Your task to perform on an android device: Open Google Chrome and click the shortcut for Amazon.com Image 0: 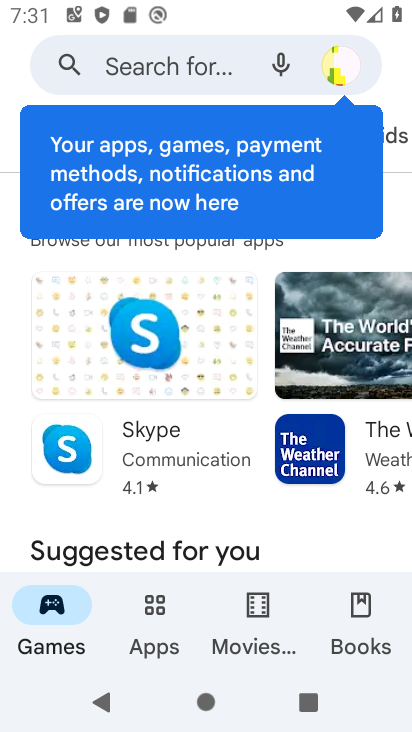
Step 0: press back button
Your task to perform on an android device: Open Google Chrome and click the shortcut for Amazon.com Image 1: 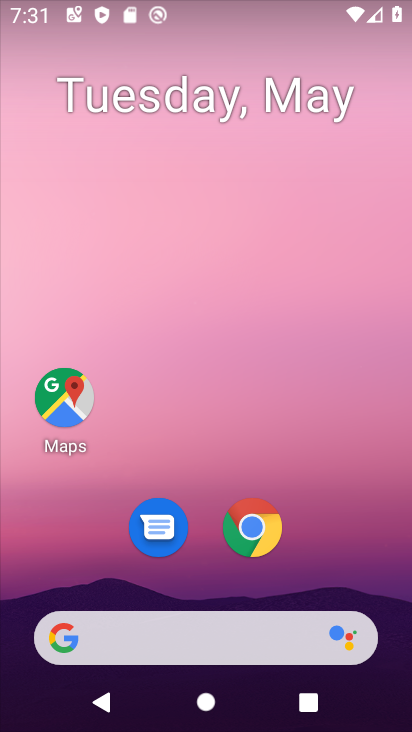
Step 1: click (254, 530)
Your task to perform on an android device: Open Google Chrome and click the shortcut for Amazon.com Image 2: 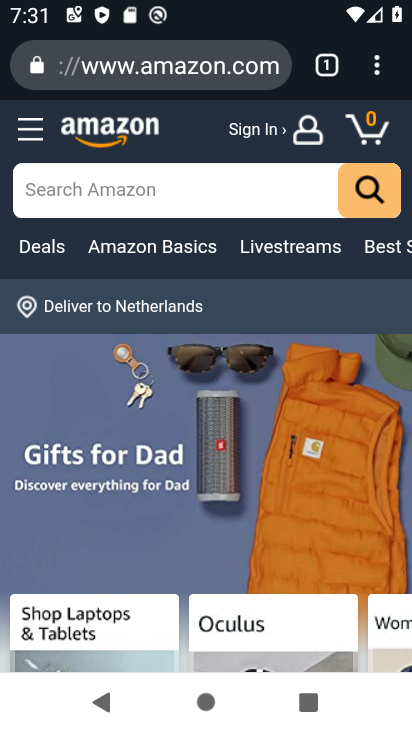
Step 2: click (378, 66)
Your task to perform on an android device: Open Google Chrome and click the shortcut for Amazon.com Image 3: 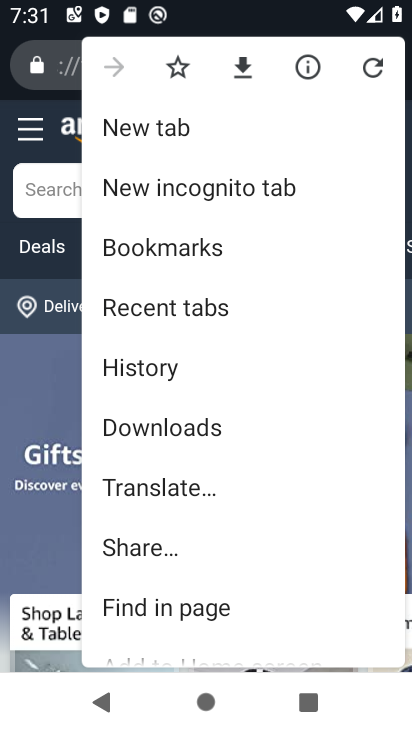
Step 3: drag from (203, 536) to (230, 444)
Your task to perform on an android device: Open Google Chrome and click the shortcut for Amazon.com Image 4: 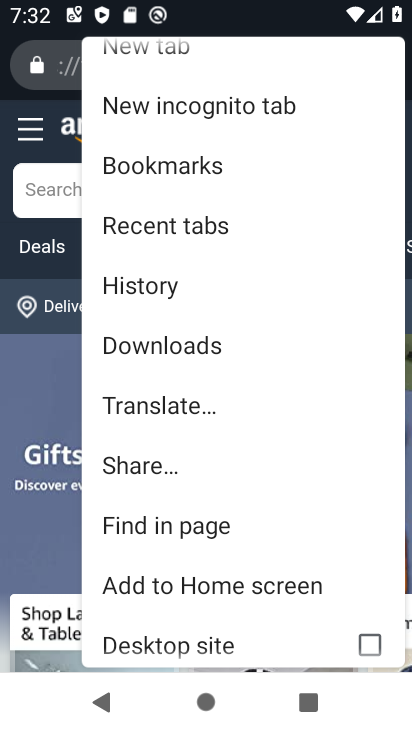
Step 4: click (228, 583)
Your task to perform on an android device: Open Google Chrome and click the shortcut for Amazon.com Image 5: 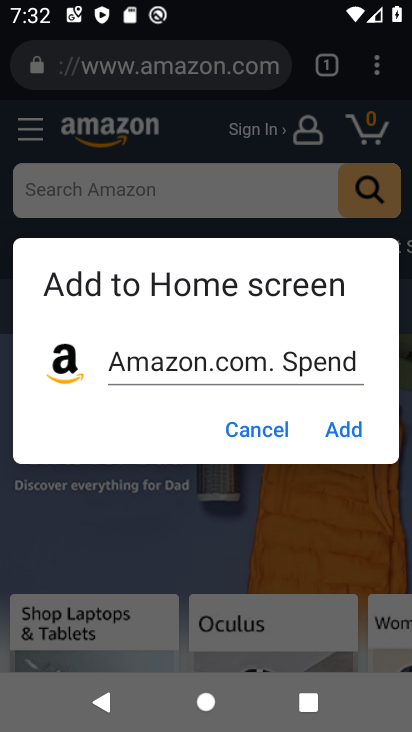
Step 5: click (336, 428)
Your task to perform on an android device: Open Google Chrome and click the shortcut for Amazon.com Image 6: 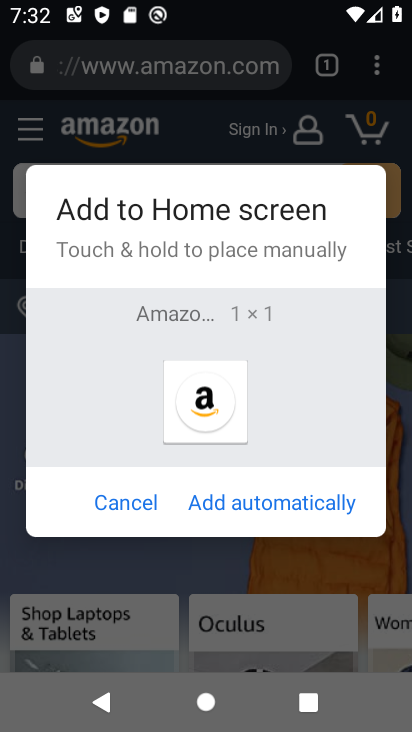
Step 6: click (293, 502)
Your task to perform on an android device: Open Google Chrome and click the shortcut for Amazon.com Image 7: 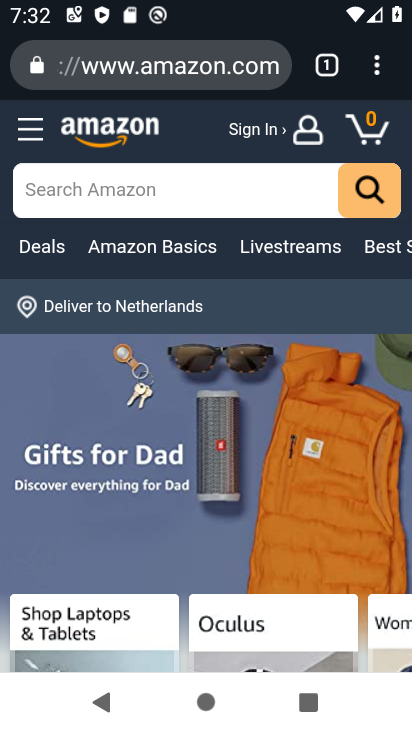
Step 7: task complete